Your task to perform on an android device: remove spam from my inbox in the gmail app Image 0: 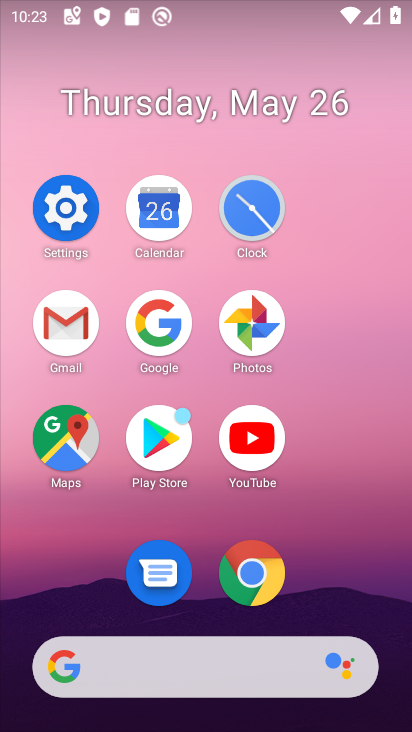
Step 0: click (52, 333)
Your task to perform on an android device: remove spam from my inbox in the gmail app Image 1: 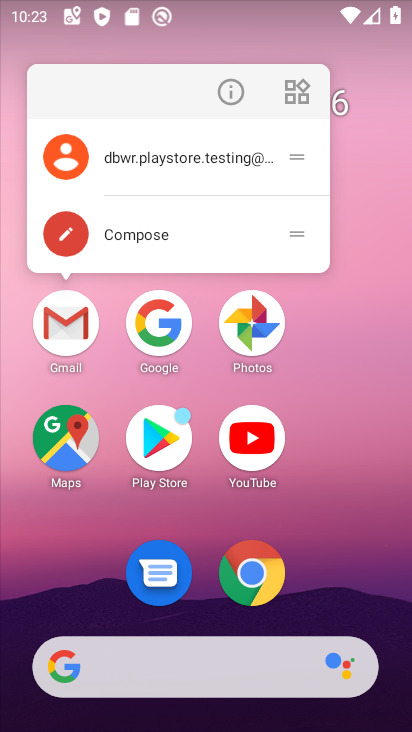
Step 1: click (53, 332)
Your task to perform on an android device: remove spam from my inbox in the gmail app Image 2: 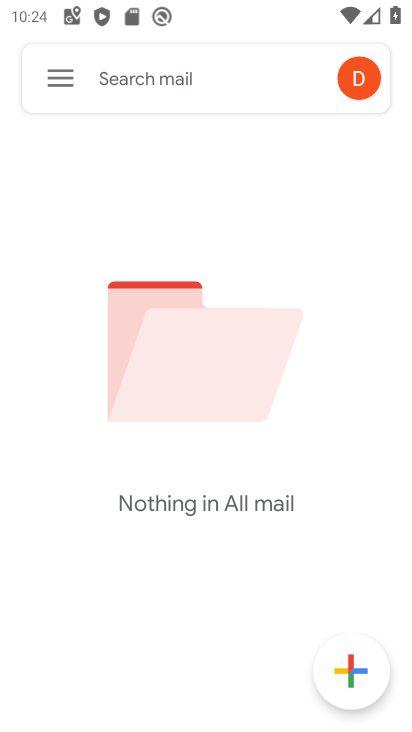
Step 2: click (71, 88)
Your task to perform on an android device: remove spam from my inbox in the gmail app Image 3: 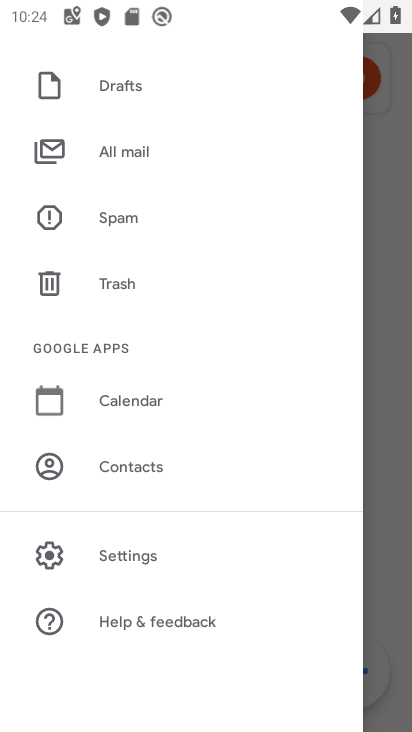
Step 3: click (208, 224)
Your task to perform on an android device: remove spam from my inbox in the gmail app Image 4: 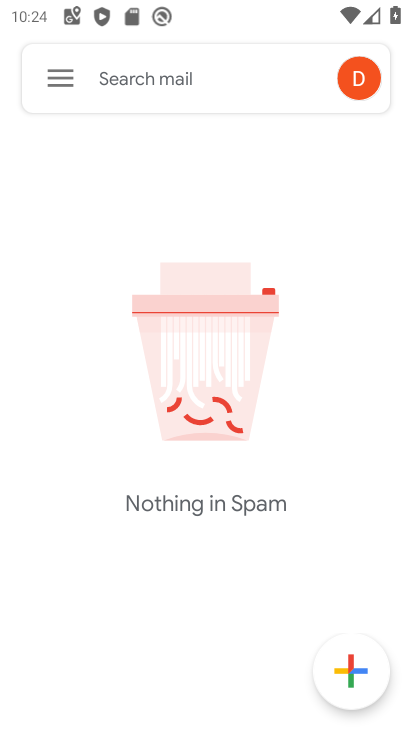
Step 4: task complete